Your task to perform on an android device: search for starred emails in the gmail app Image 0: 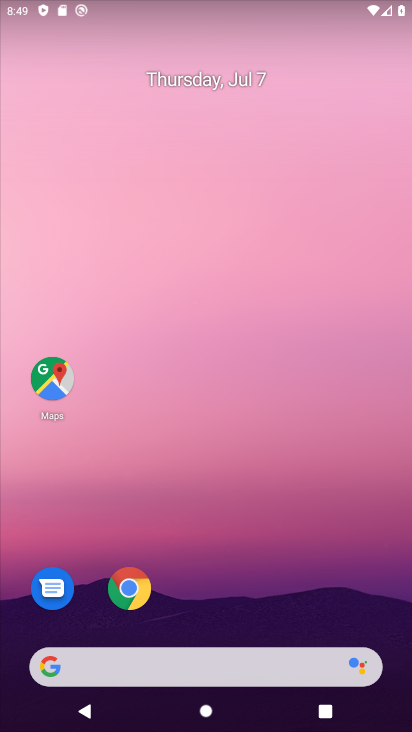
Step 0: press home button
Your task to perform on an android device: search for starred emails in the gmail app Image 1: 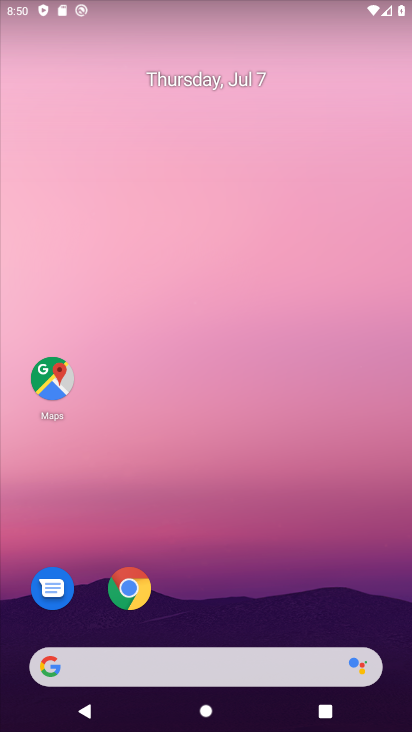
Step 1: drag from (209, 625) to (243, 202)
Your task to perform on an android device: search for starred emails in the gmail app Image 2: 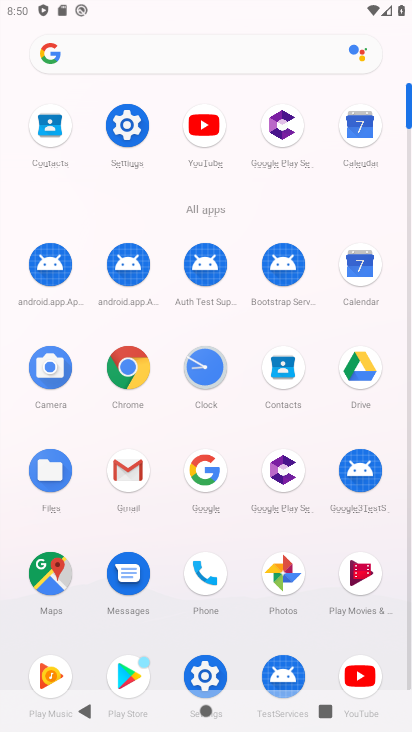
Step 2: click (126, 460)
Your task to perform on an android device: search for starred emails in the gmail app Image 3: 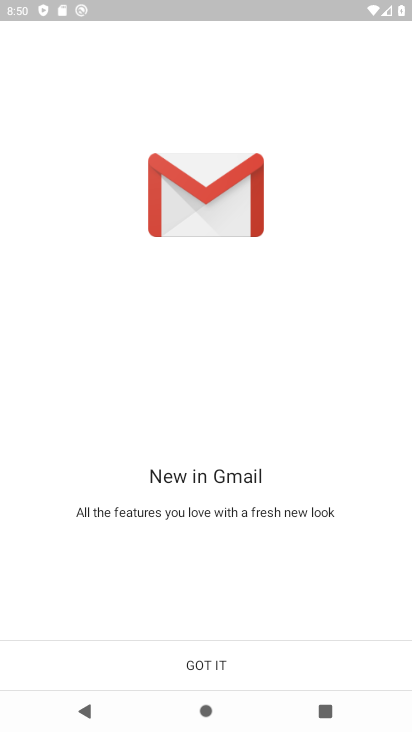
Step 3: click (204, 664)
Your task to perform on an android device: search for starred emails in the gmail app Image 4: 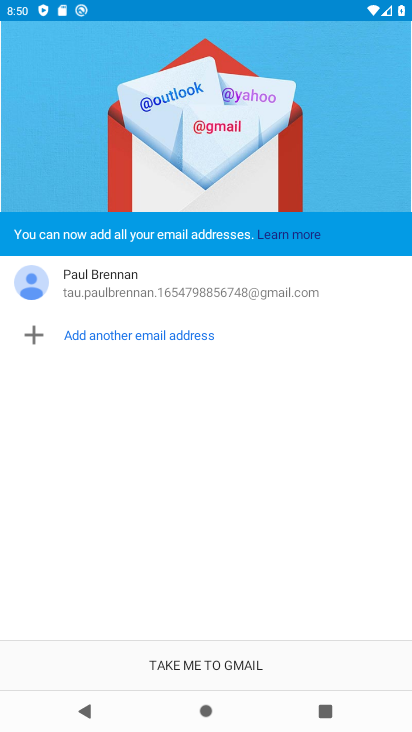
Step 4: click (201, 666)
Your task to perform on an android device: search for starred emails in the gmail app Image 5: 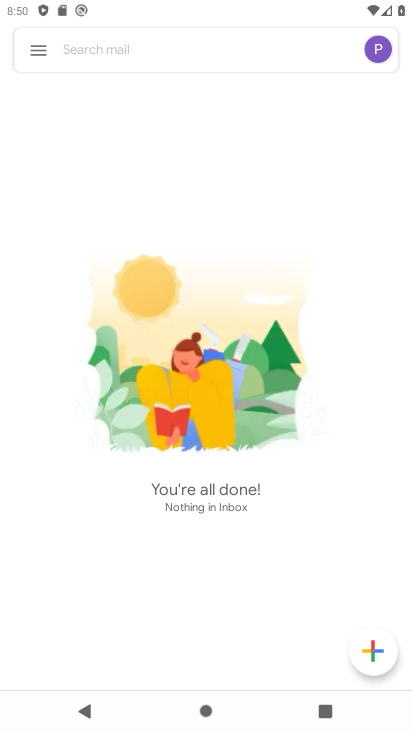
Step 5: click (32, 47)
Your task to perform on an android device: search for starred emails in the gmail app Image 6: 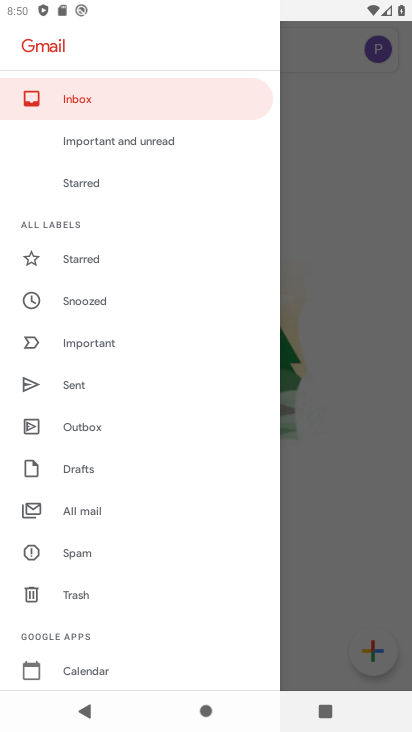
Step 6: click (112, 255)
Your task to perform on an android device: search for starred emails in the gmail app Image 7: 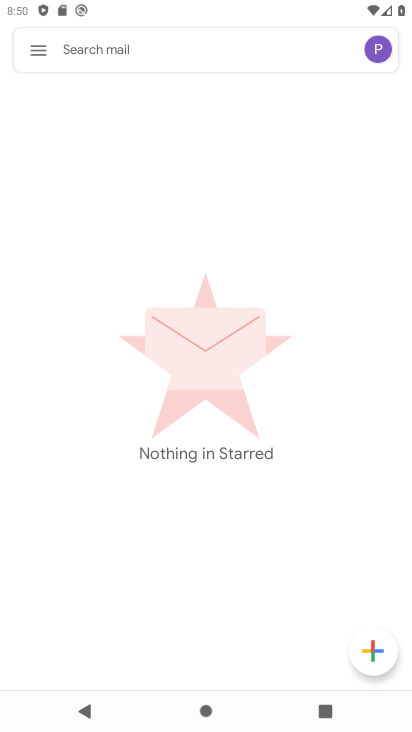
Step 7: task complete